Your task to perform on an android device: turn off smart reply in the gmail app Image 0: 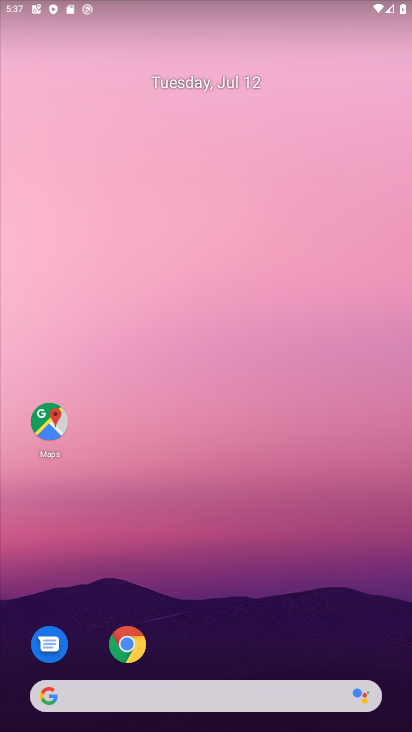
Step 0: drag from (348, 638) to (283, 107)
Your task to perform on an android device: turn off smart reply in the gmail app Image 1: 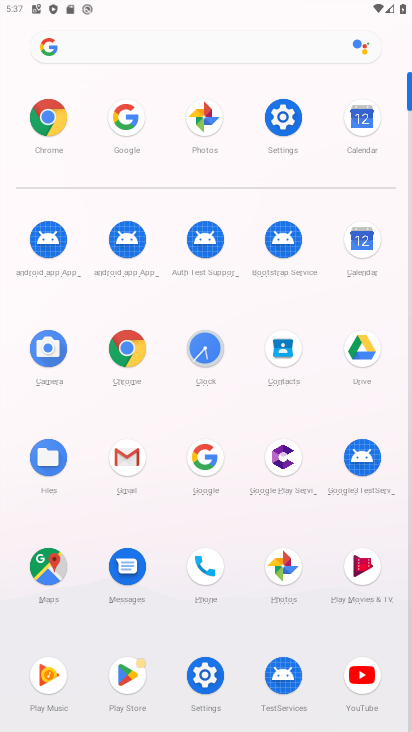
Step 1: click (125, 450)
Your task to perform on an android device: turn off smart reply in the gmail app Image 2: 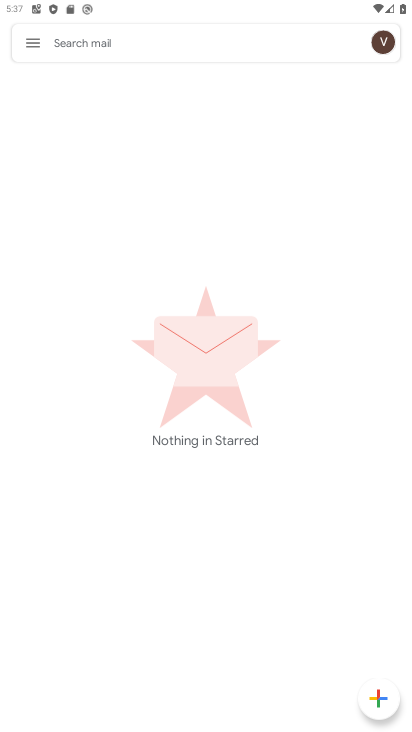
Step 2: click (31, 43)
Your task to perform on an android device: turn off smart reply in the gmail app Image 3: 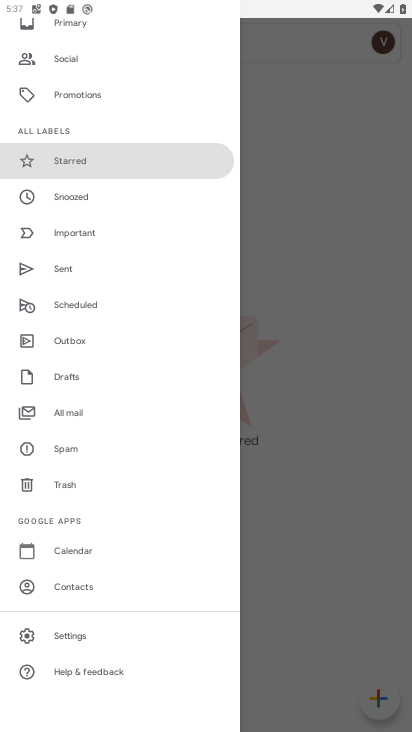
Step 3: click (72, 637)
Your task to perform on an android device: turn off smart reply in the gmail app Image 4: 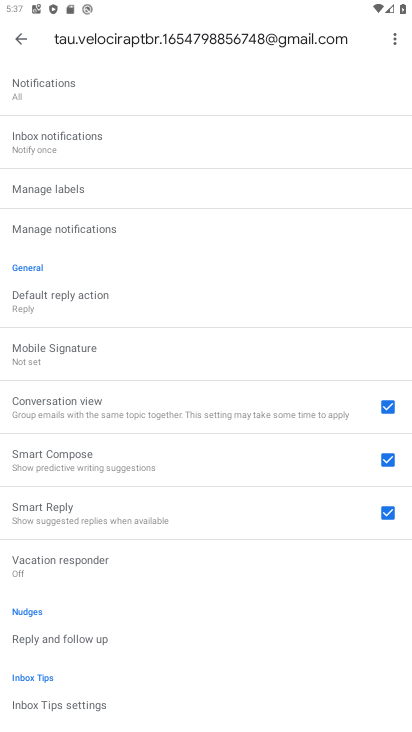
Step 4: click (43, 517)
Your task to perform on an android device: turn off smart reply in the gmail app Image 5: 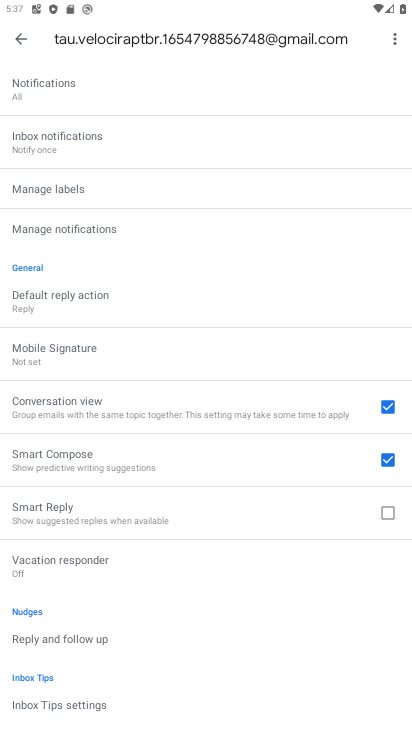
Step 5: task complete